Your task to perform on an android device: Open the Play Movies app and select the watchlist tab. Image 0: 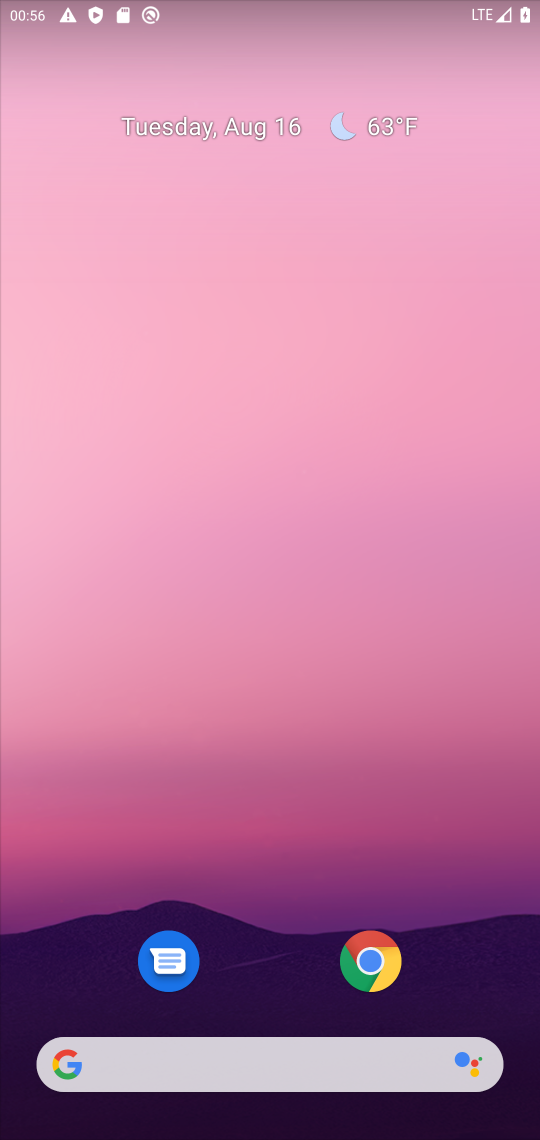
Step 0: click (267, 39)
Your task to perform on an android device: Open the Play Movies app and select the watchlist tab. Image 1: 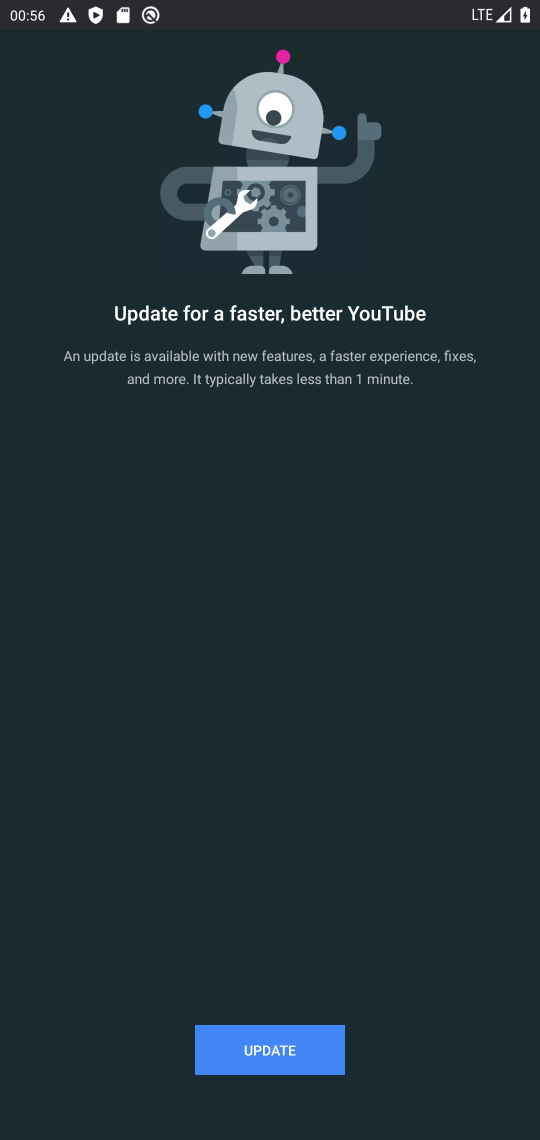
Step 1: press home button
Your task to perform on an android device: Open the Play Movies app and select the watchlist tab. Image 2: 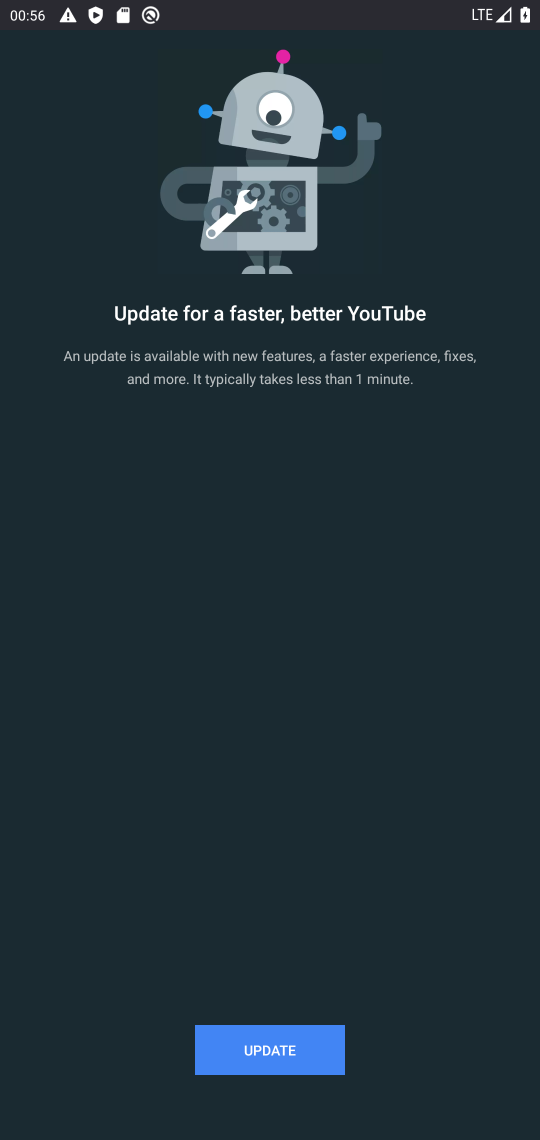
Step 2: press home button
Your task to perform on an android device: Open the Play Movies app and select the watchlist tab. Image 3: 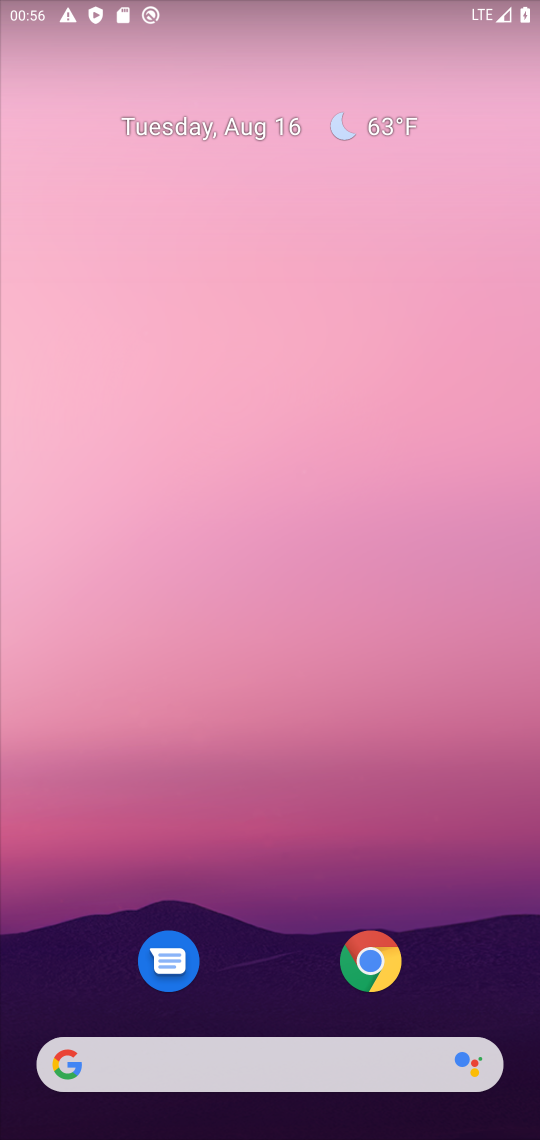
Step 3: drag from (273, 837) to (311, 129)
Your task to perform on an android device: Open the Play Movies app and select the watchlist tab. Image 4: 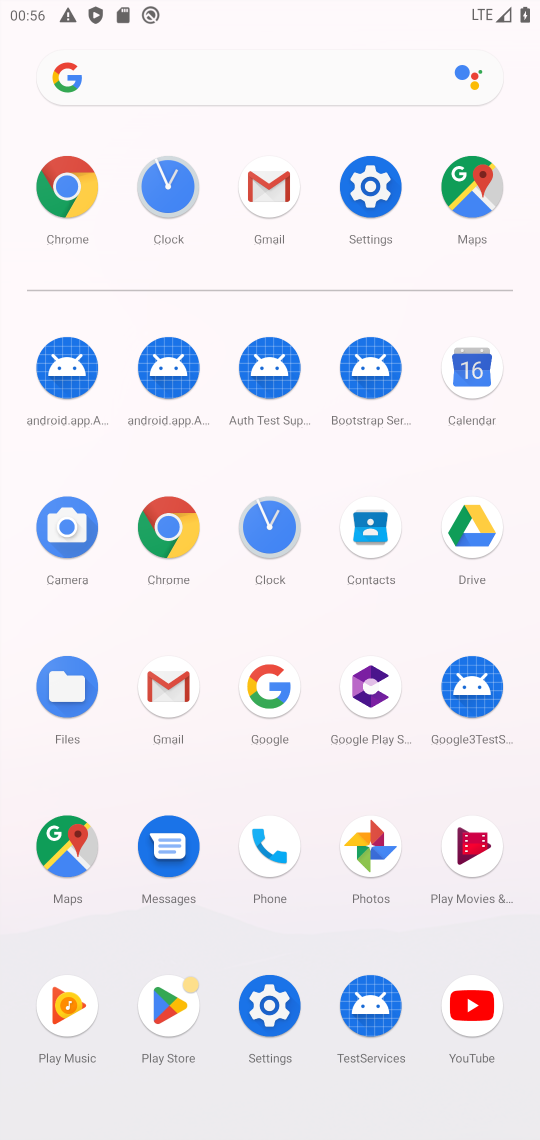
Step 4: click (435, 865)
Your task to perform on an android device: Open the Play Movies app and select the watchlist tab. Image 5: 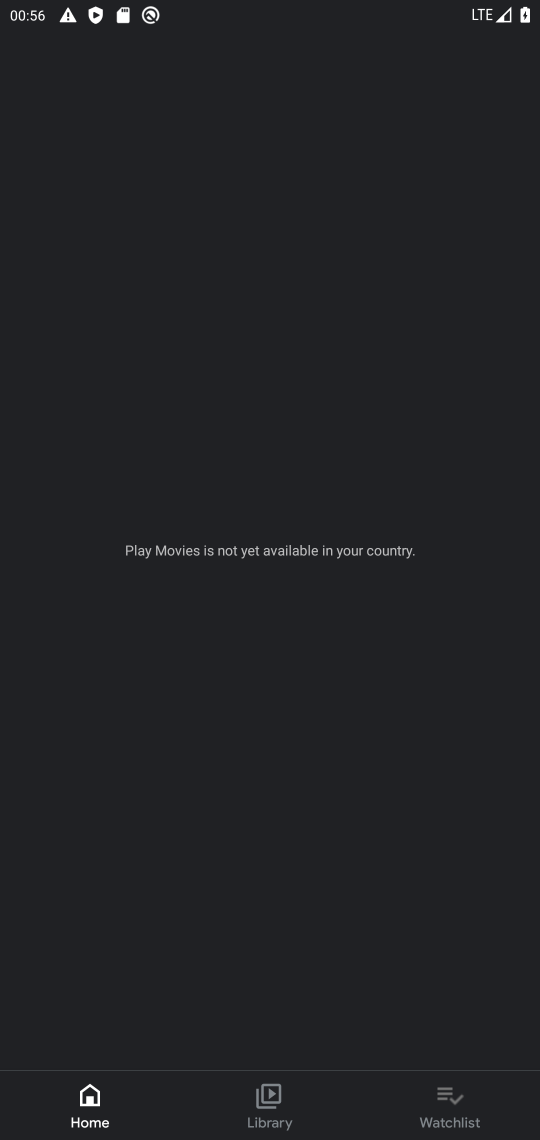
Step 5: click (411, 1093)
Your task to perform on an android device: Open the Play Movies app and select the watchlist tab. Image 6: 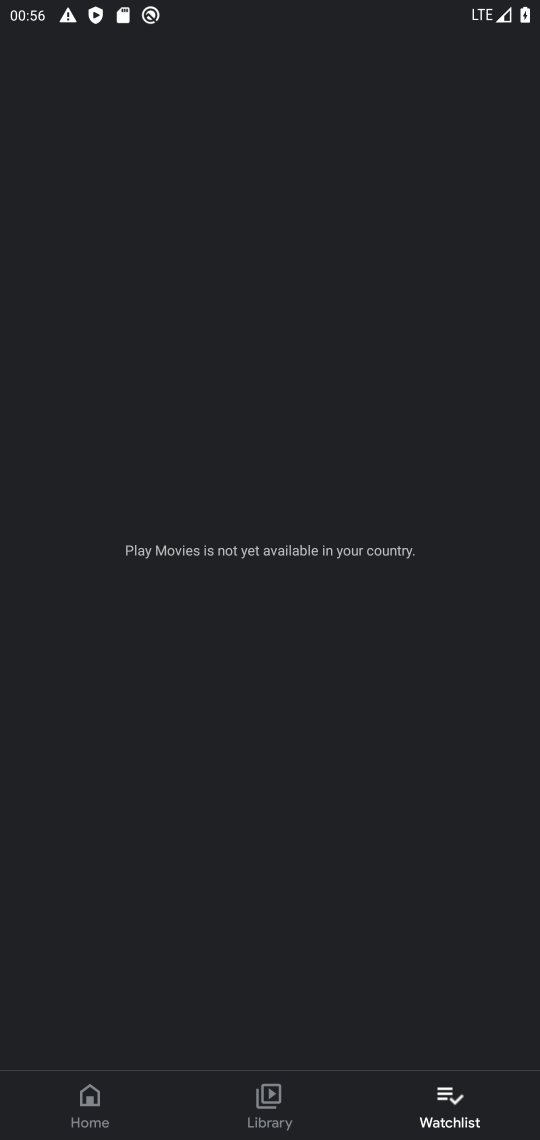
Step 6: task complete